Your task to perform on an android device: see sites visited before in the chrome app Image 0: 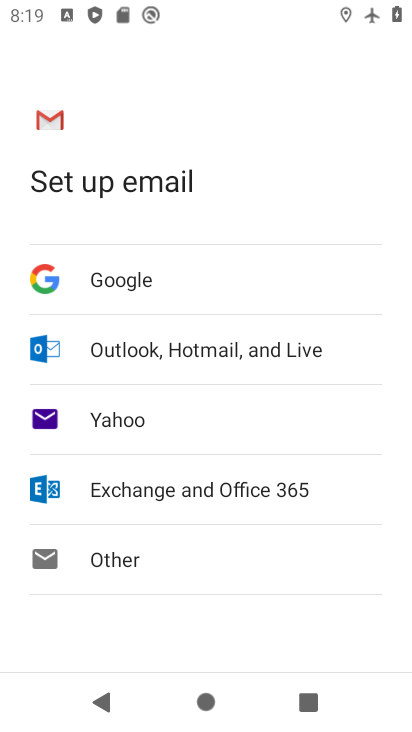
Step 0: press home button
Your task to perform on an android device: see sites visited before in the chrome app Image 1: 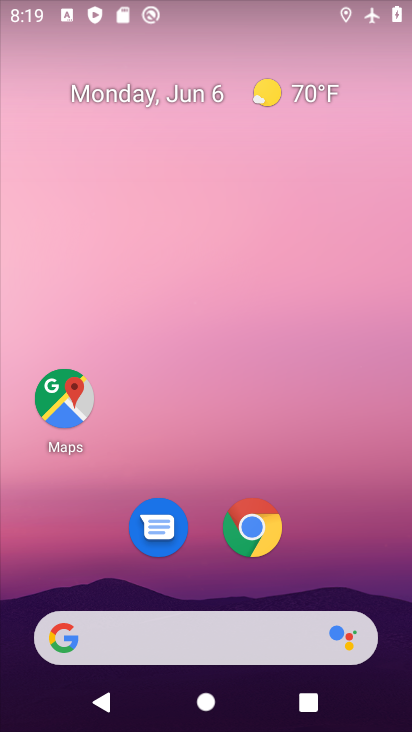
Step 1: click (266, 548)
Your task to perform on an android device: see sites visited before in the chrome app Image 2: 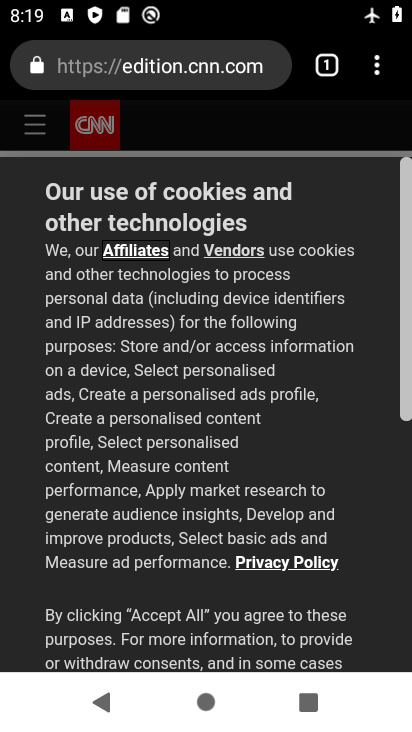
Step 2: click (389, 84)
Your task to perform on an android device: see sites visited before in the chrome app Image 3: 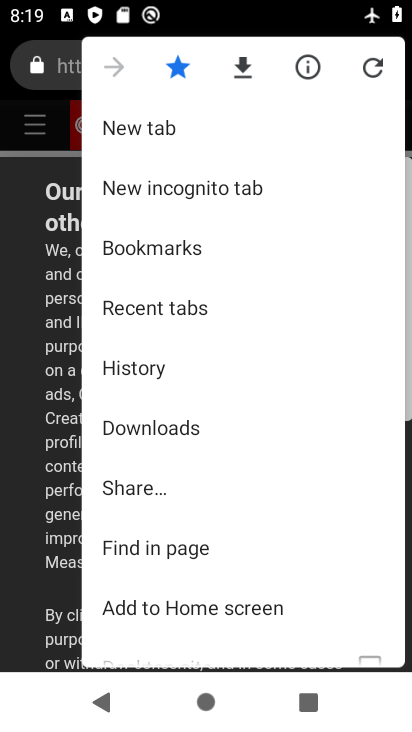
Step 3: click (158, 384)
Your task to perform on an android device: see sites visited before in the chrome app Image 4: 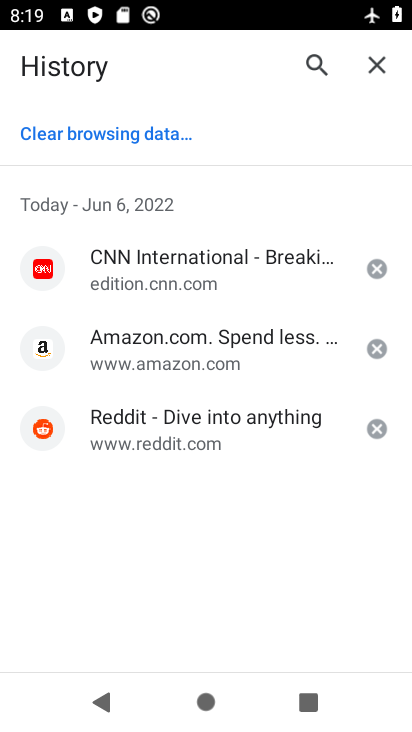
Step 4: task complete